Your task to perform on an android device: clear all cookies in the chrome app Image 0: 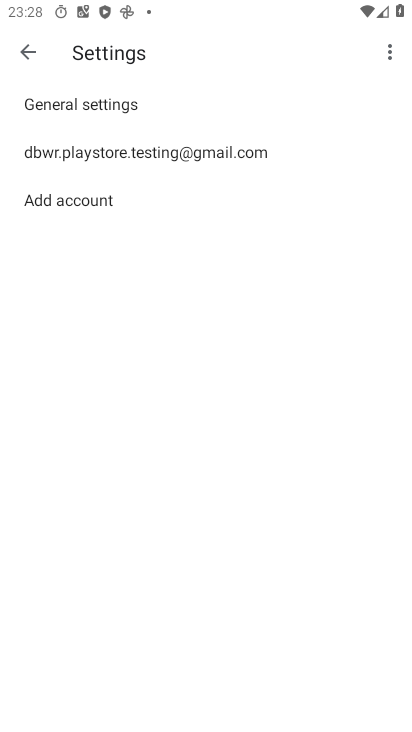
Step 0: press home button
Your task to perform on an android device: clear all cookies in the chrome app Image 1: 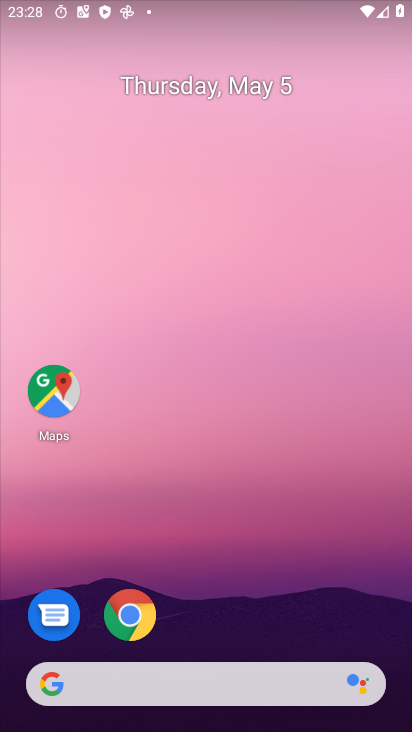
Step 1: click (131, 614)
Your task to perform on an android device: clear all cookies in the chrome app Image 2: 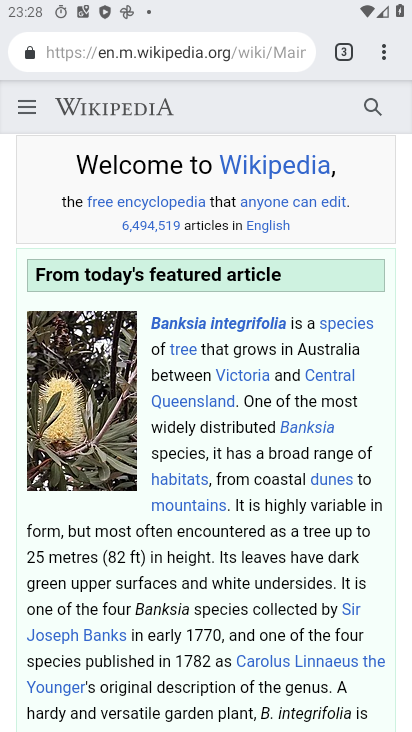
Step 2: click (380, 51)
Your task to perform on an android device: clear all cookies in the chrome app Image 3: 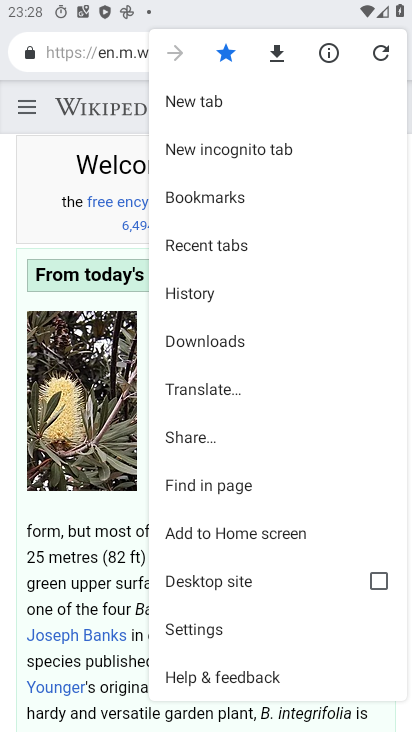
Step 3: click (229, 628)
Your task to perform on an android device: clear all cookies in the chrome app Image 4: 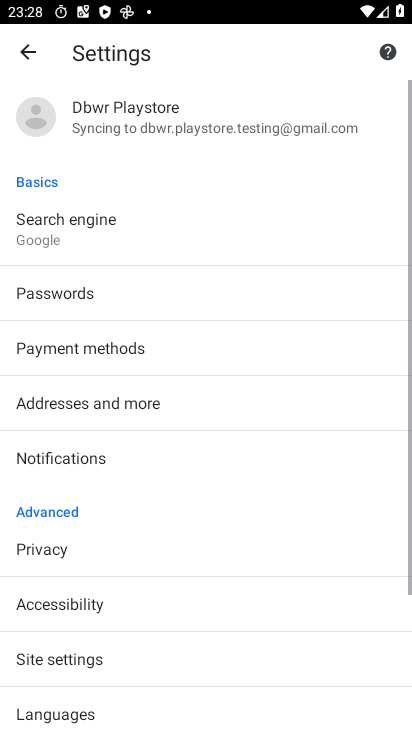
Step 4: drag from (236, 609) to (226, 201)
Your task to perform on an android device: clear all cookies in the chrome app Image 5: 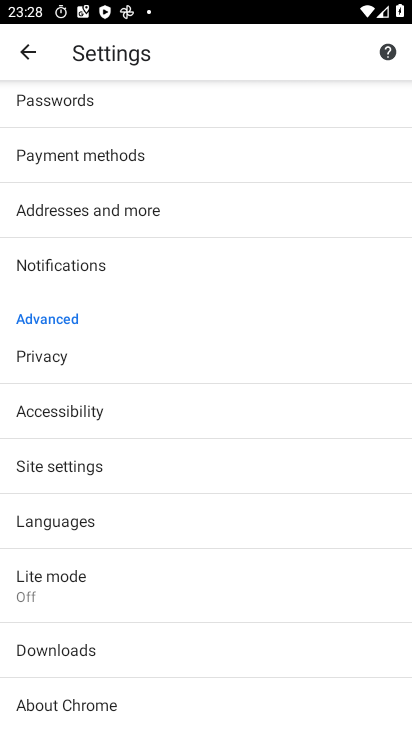
Step 5: click (91, 360)
Your task to perform on an android device: clear all cookies in the chrome app Image 6: 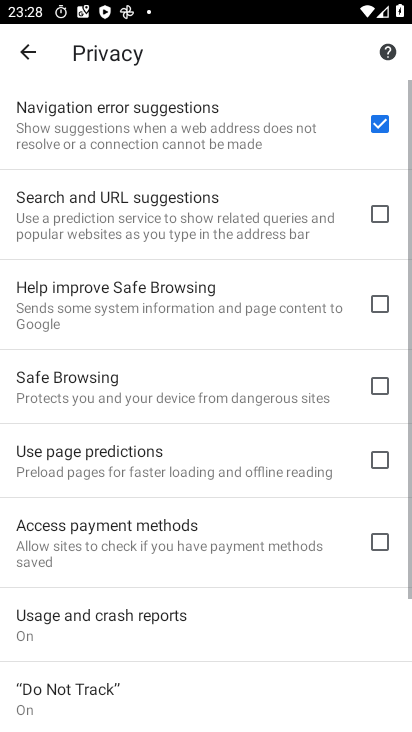
Step 6: drag from (250, 583) to (248, 159)
Your task to perform on an android device: clear all cookies in the chrome app Image 7: 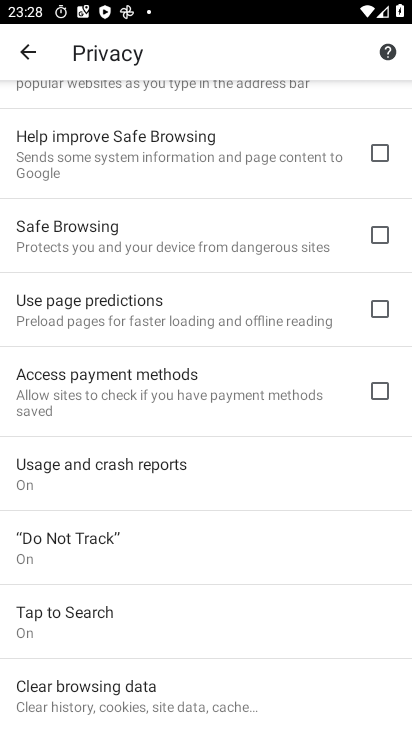
Step 7: drag from (177, 607) to (165, 357)
Your task to perform on an android device: clear all cookies in the chrome app Image 8: 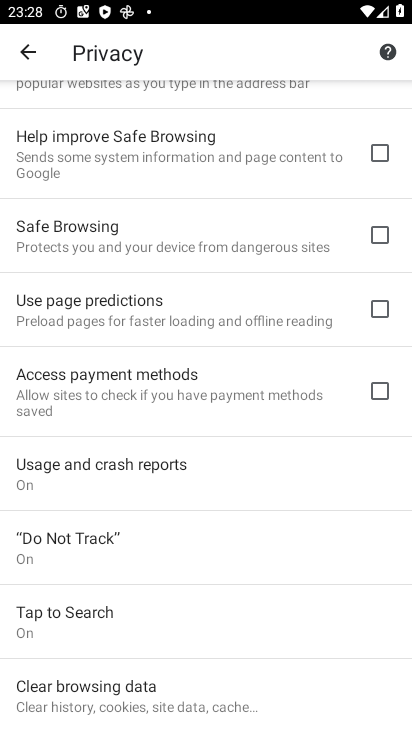
Step 8: click (127, 724)
Your task to perform on an android device: clear all cookies in the chrome app Image 9: 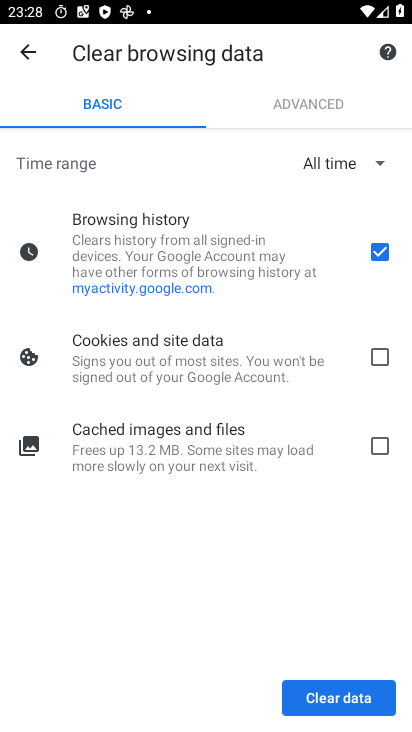
Step 9: click (377, 362)
Your task to perform on an android device: clear all cookies in the chrome app Image 10: 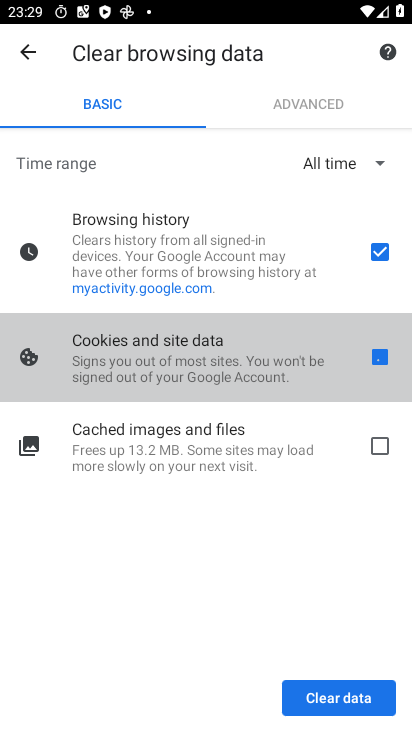
Step 10: click (375, 256)
Your task to perform on an android device: clear all cookies in the chrome app Image 11: 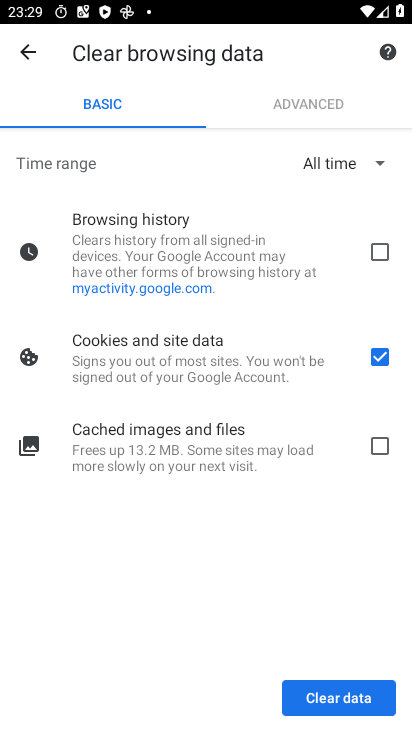
Step 11: click (333, 701)
Your task to perform on an android device: clear all cookies in the chrome app Image 12: 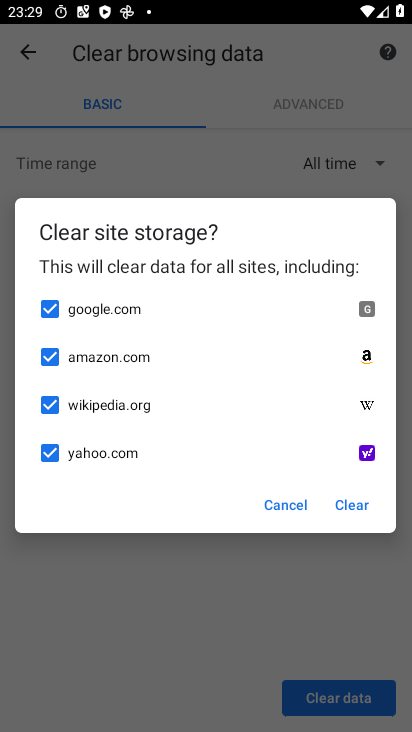
Step 12: click (354, 511)
Your task to perform on an android device: clear all cookies in the chrome app Image 13: 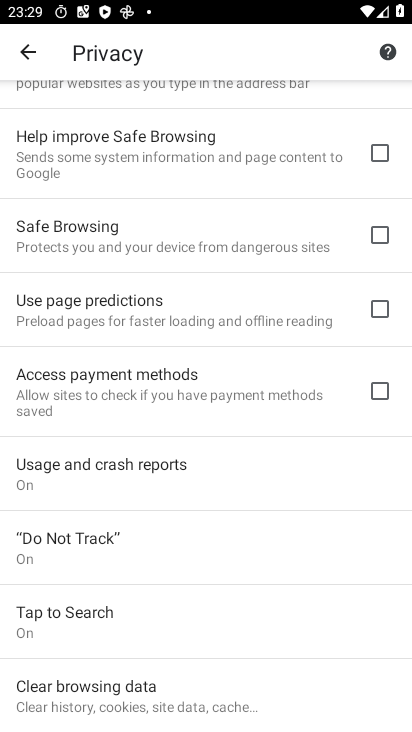
Step 13: task complete